Your task to perform on an android device: turn pop-ups on in chrome Image 0: 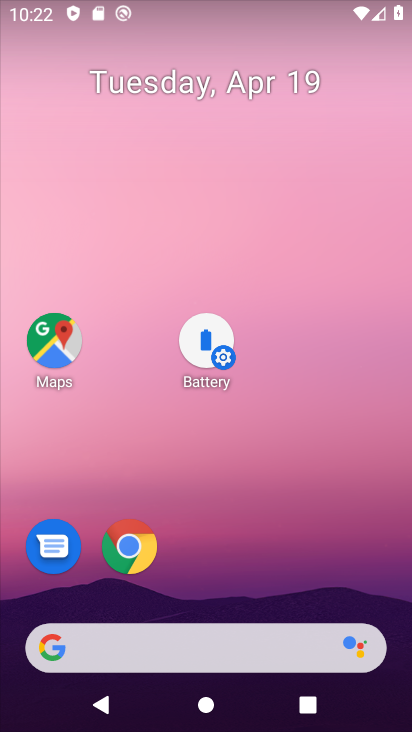
Step 0: click (120, 556)
Your task to perform on an android device: turn pop-ups on in chrome Image 1: 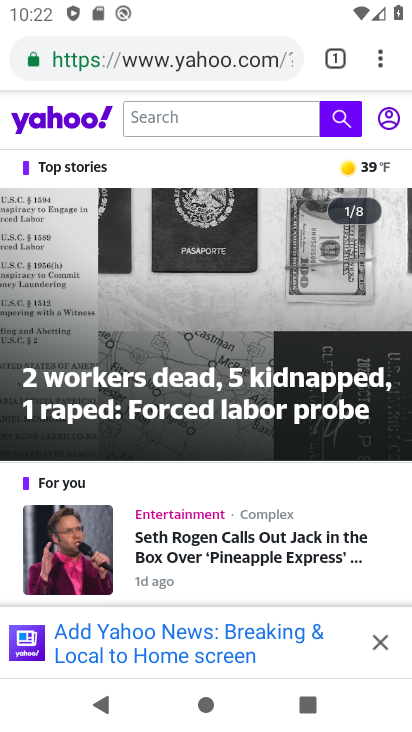
Step 1: click (387, 53)
Your task to perform on an android device: turn pop-ups on in chrome Image 2: 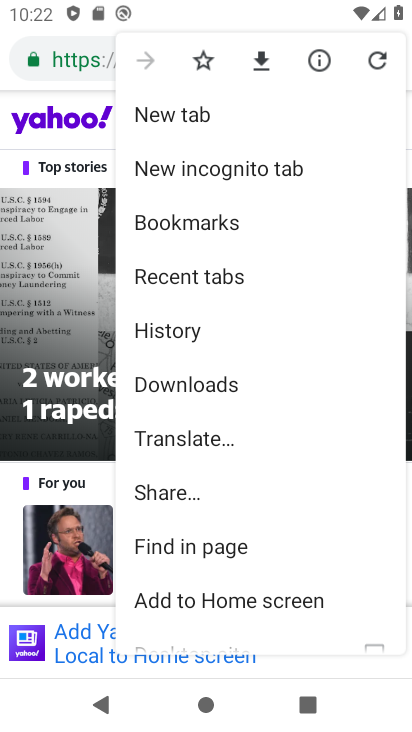
Step 2: drag from (259, 389) to (319, 32)
Your task to perform on an android device: turn pop-ups on in chrome Image 3: 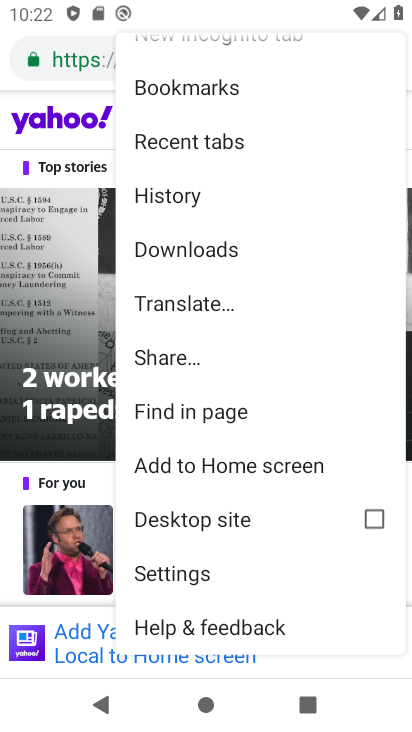
Step 3: click (194, 577)
Your task to perform on an android device: turn pop-ups on in chrome Image 4: 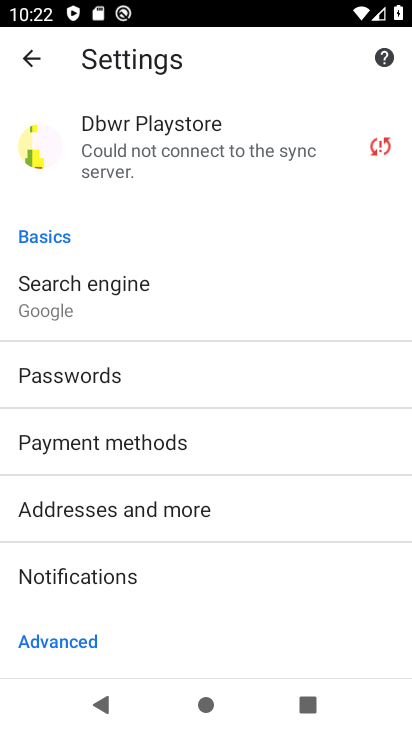
Step 4: drag from (170, 613) to (297, 58)
Your task to perform on an android device: turn pop-ups on in chrome Image 5: 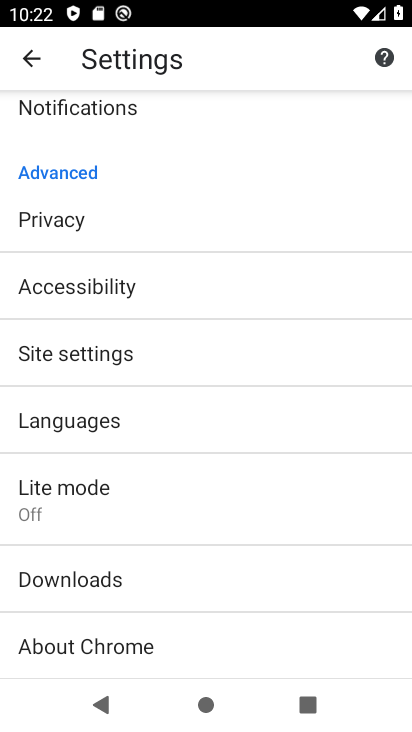
Step 5: click (65, 351)
Your task to perform on an android device: turn pop-ups on in chrome Image 6: 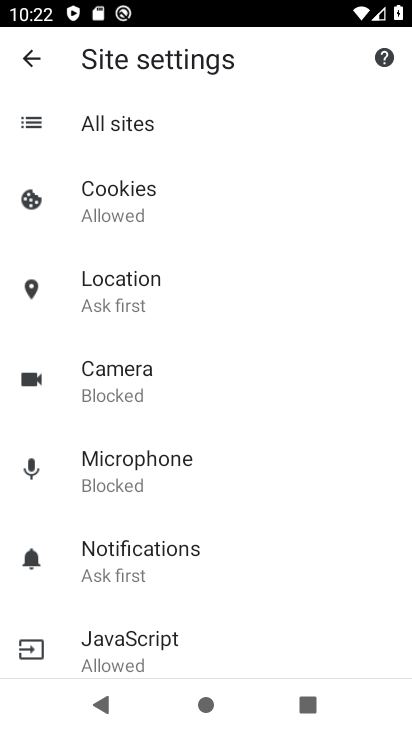
Step 6: drag from (162, 627) to (327, 125)
Your task to perform on an android device: turn pop-ups on in chrome Image 7: 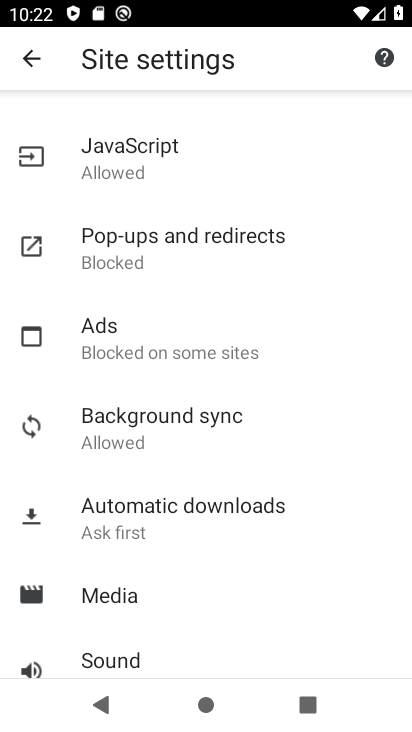
Step 7: click (205, 251)
Your task to perform on an android device: turn pop-ups on in chrome Image 8: 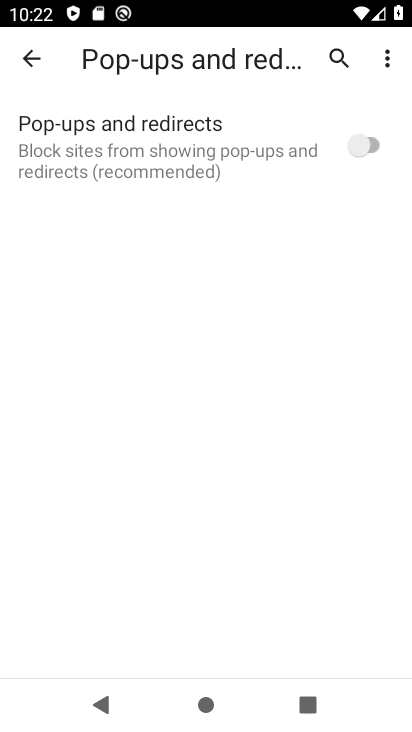
Step 8: click (354, 142)
Your task to perform on an android device: turn pop-ups on in chrome Image 9: 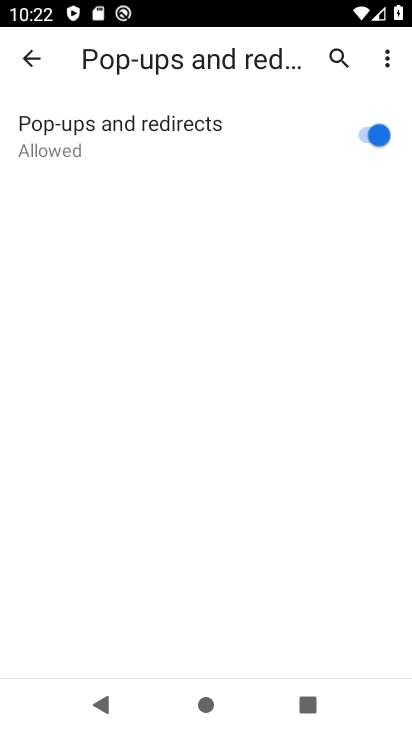
Step 9: task complete